Your task to perform on an android device: install app "Flipkart Online Shopping App" Image 0: 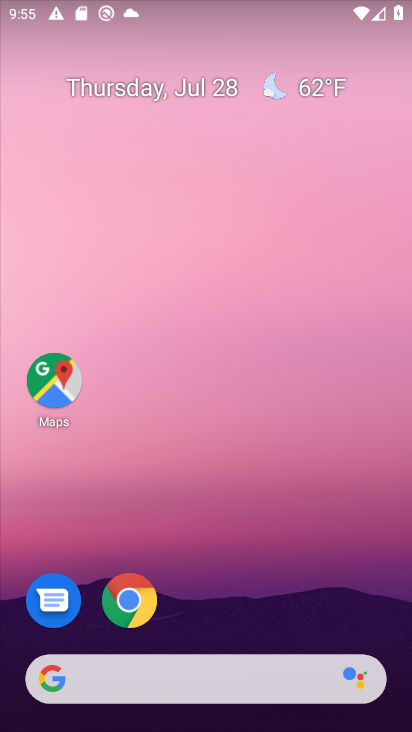
Step 0: drag from (232, 628) to (223, 5)
Your task to perform on an android device: install app "Flipkart Online Shopping App" Image 1: 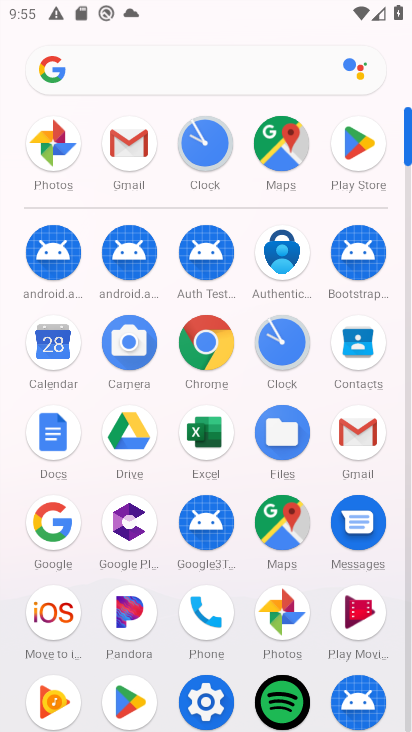
Step 1: click (361, 146)
Your task to perform on an android device: install app "Flipkart Online Shopping App" Image 2: 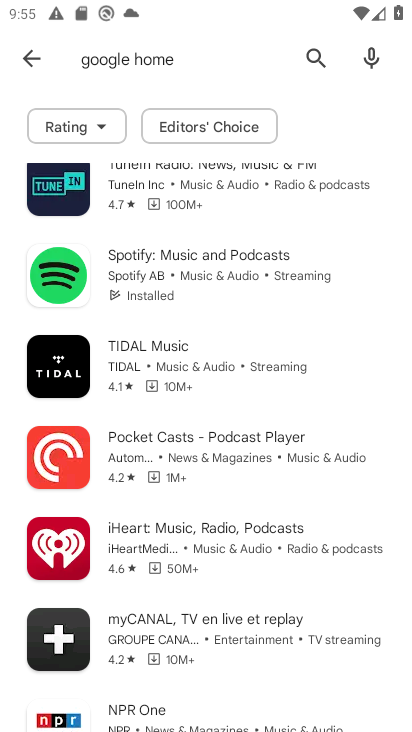
Step 2: click (310, 62)
Your task to perform on an android device: install app "Flipkart Online Shopping App" Image 3: 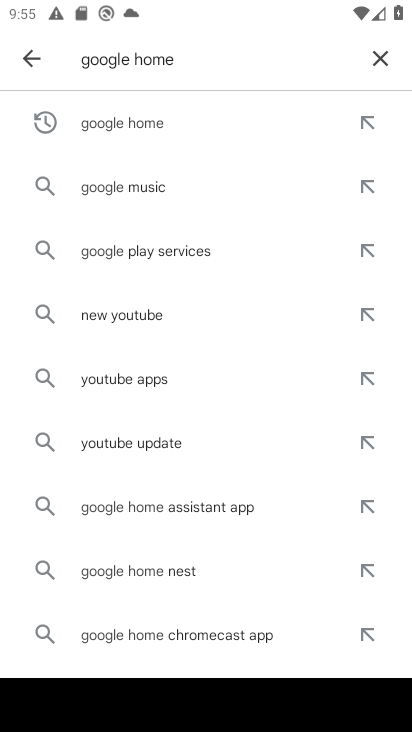
Step 3: click (377, 52)
Your task to perform on an android device: install app "Flipkart Online Shopping App" Image 4: 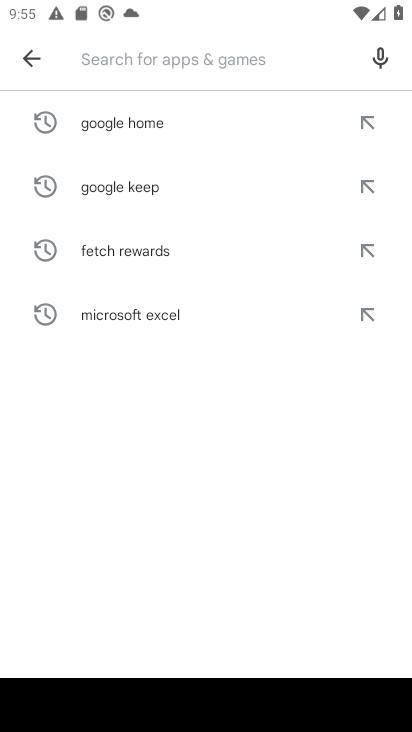
Step 4: type "Flipkart Online Shopping App"
Your task to perform on an android device: install app "Flipkart Online Shopping App" Image 5: 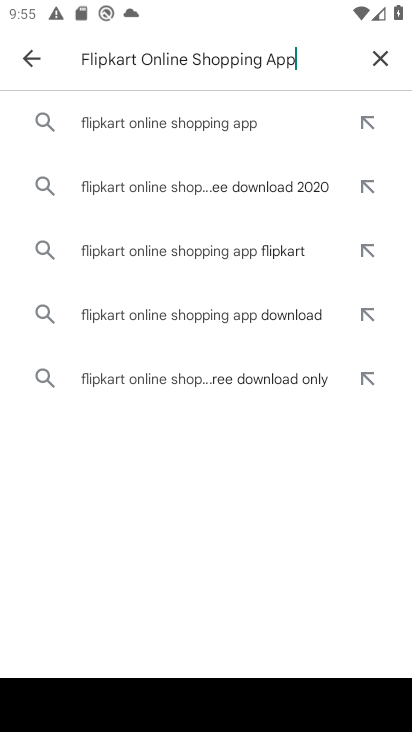
Step 5: click (167, 129)
Your task to perform on an android device: install app "Flipkart Online Shopping App" Image 6: 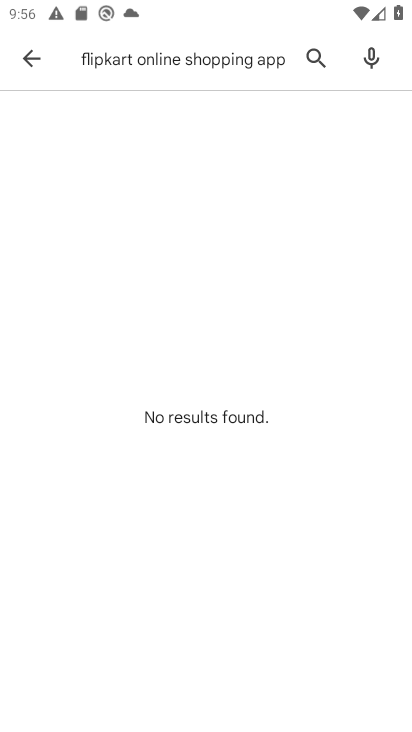
Step 6: task complete